Your task to perform on an android device: turn notification dots on Image 0: 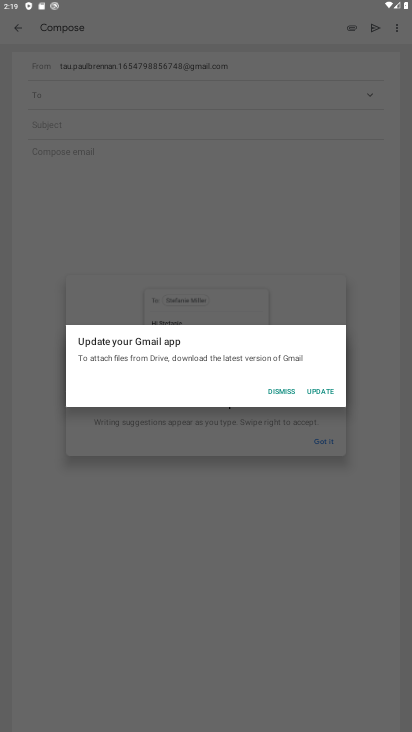
Step 0: press home button
Your task to perform on an android device: turn notification dots on Image 1: 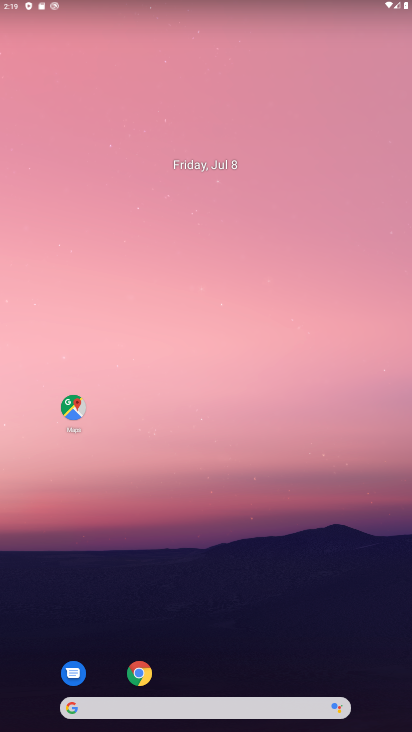
Step 1: drag from (293, 683) to (305, 309)
Your task to perform on an android device: turn notification dots on Image 2: 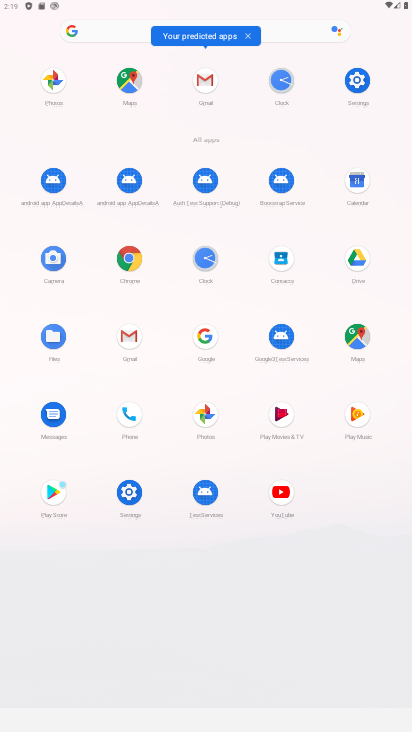
Step 2: click (358, 87)
Your task to perform on an android device: turn notification dots on Image 3: 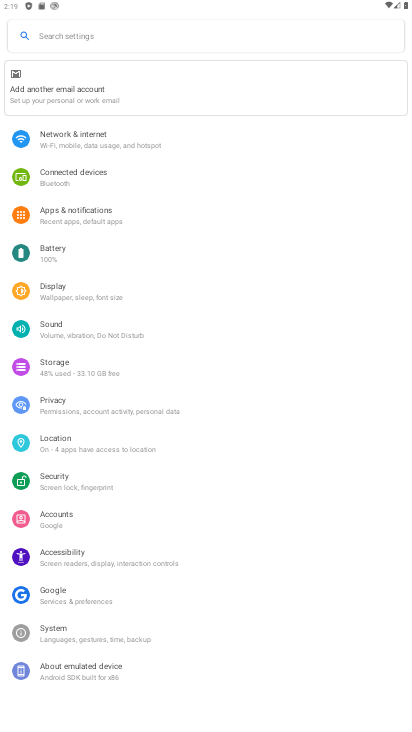
Step 3: click (76, 220)
Your task to perform on an android device: turn notification dots on Image 4: 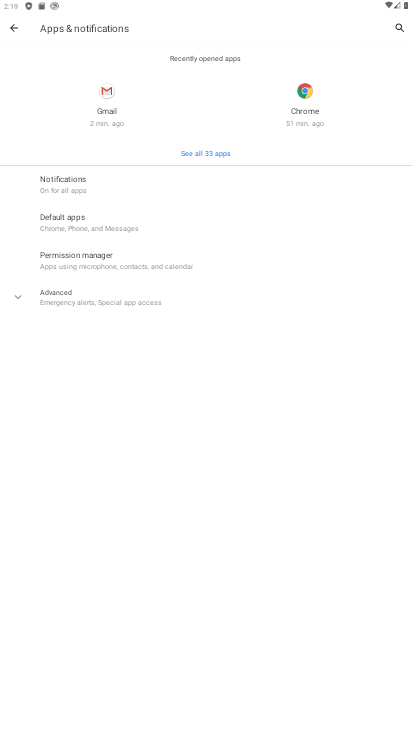
Step 4: click (85, 184)
Your task to perform on an android device: turn notification dots on Image 5: 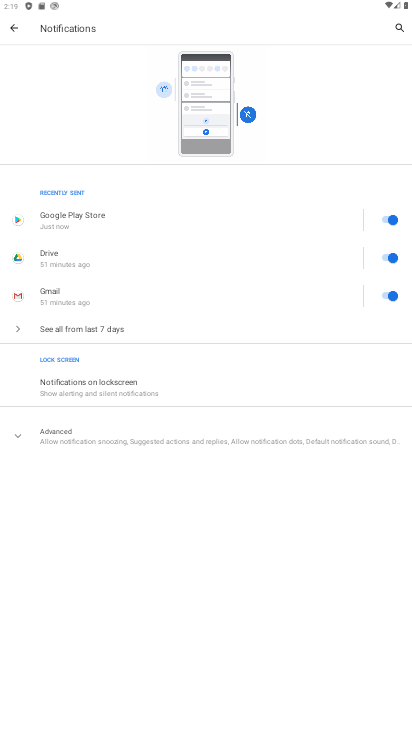
Step 5: click (76, 436)
Your task to perform on an android device: turn notification dots on Image 6: 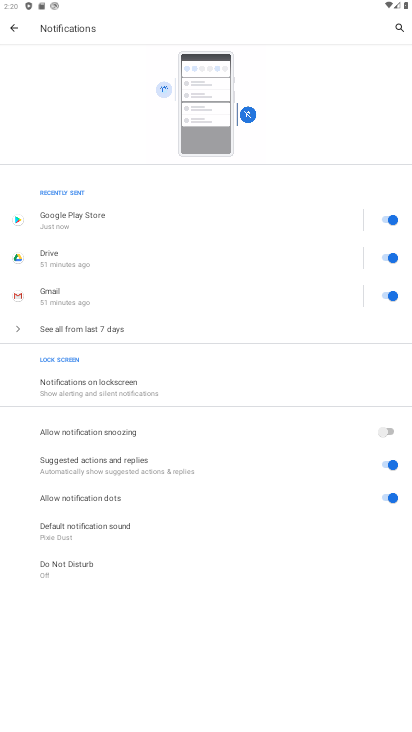
Step 6: task complete